Your task to perform on an android device: Open the calendar app, open the side menu, and click the "Day" option Image 0: 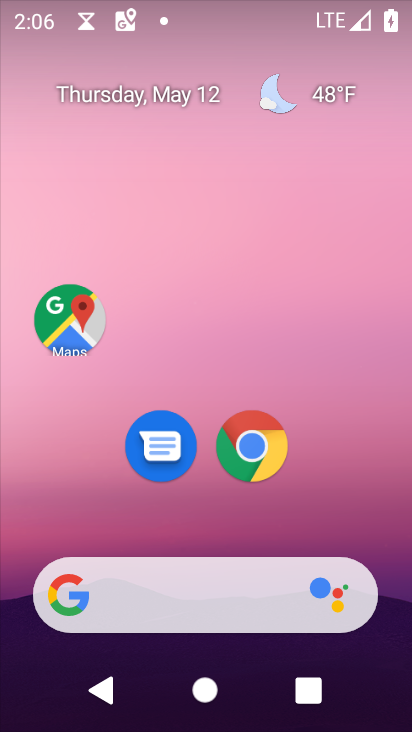
Step 0: click (181, 89)
Your task to perform on an android device: Open the calendar app, open the side menu, and click the "Day" option Image 1: 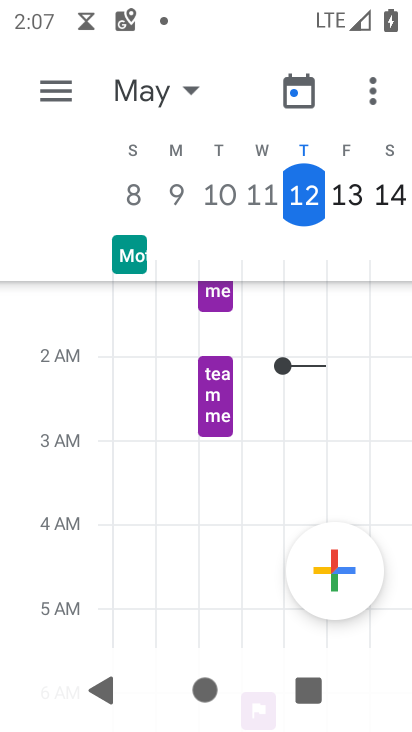
Step 1: click (62, 92)
Your task to perform on an android device: Open the calendar app, open the side menu, and click the "Day" option Image 2: 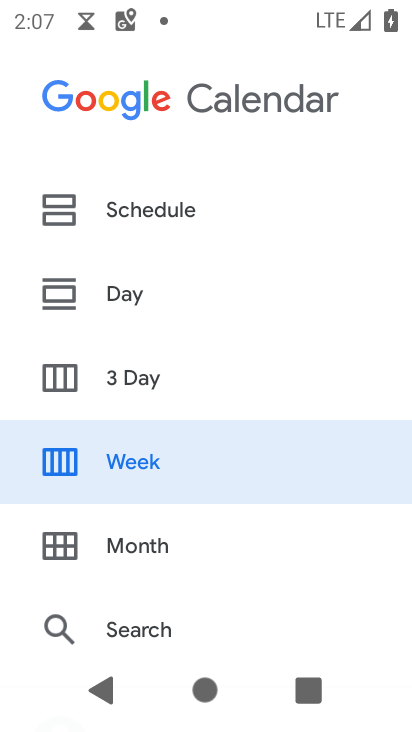
Step 2: click (110, 298)
Your task to perform on an android device: Open the calendar app, open the side menu, and click the "Day" option Image 3: 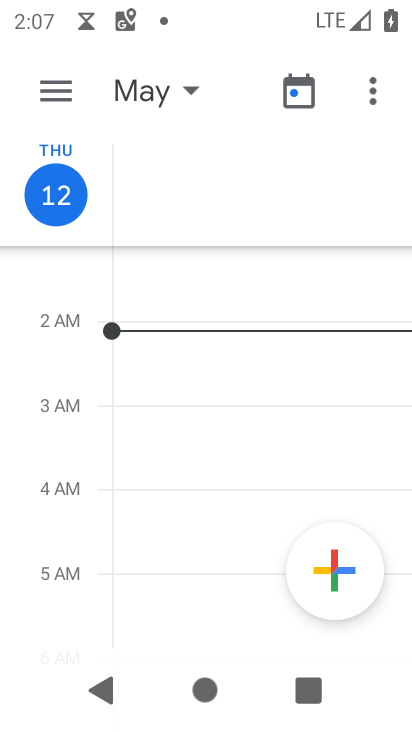
Step 3: task complete